Your task to perform on an android device: Go to Amazon Image 0: 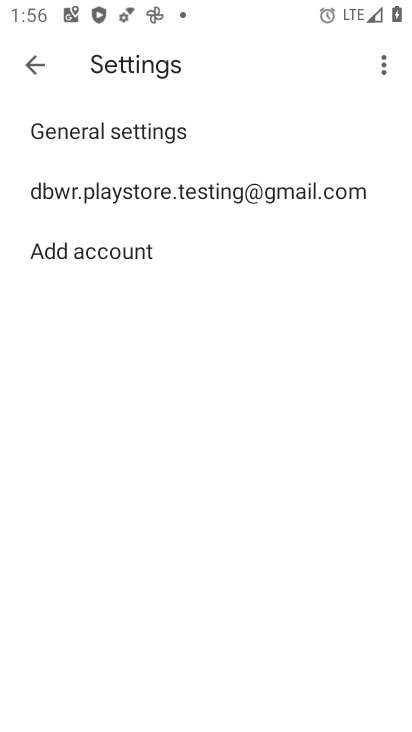
Step 0: press home button
Your task to perform on an android device: Go to Amazon Image 1: 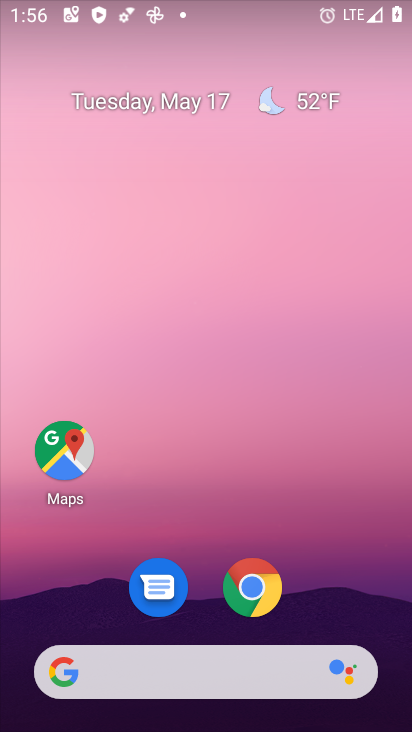
Step 1: click (245, 599)
Your task to perform on an android device: Go to Amazon Image 2: 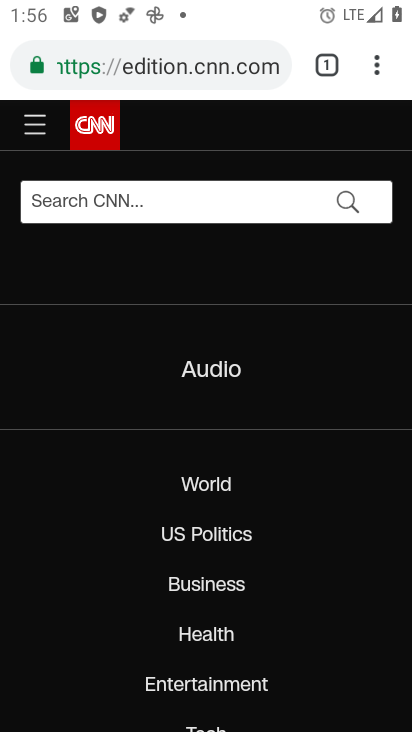
Step 2: click (342, 67)
Your task to perform on an android device: Go to Amazon Image 3: 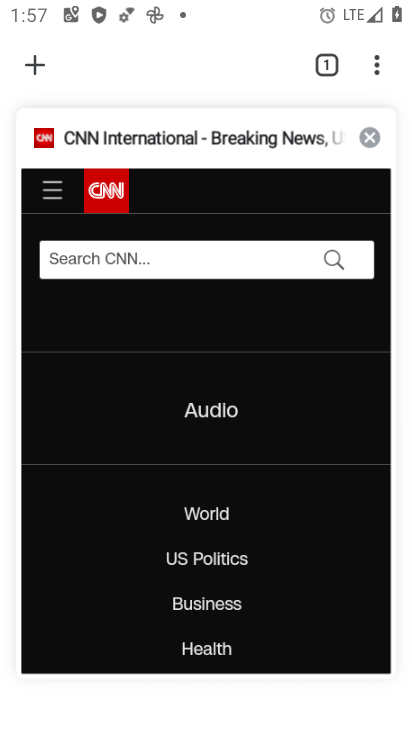
Step 3: click (27, 57)
Your task to perform on an android device: Go to Amazon Image 4: 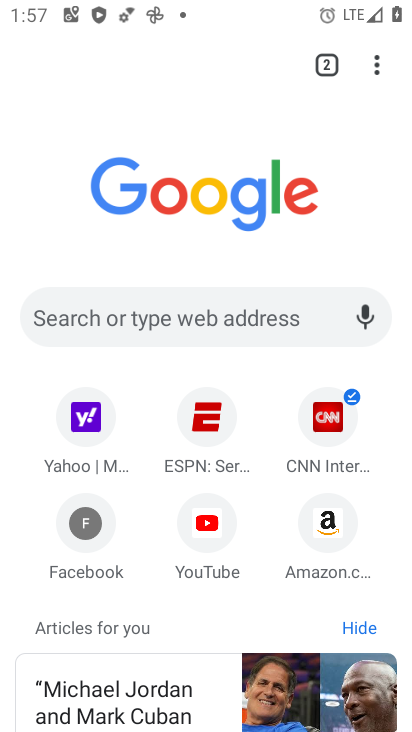
Step 4: click (312, 509)
Your task to perform on an android device: Go to Amazon Image 5: 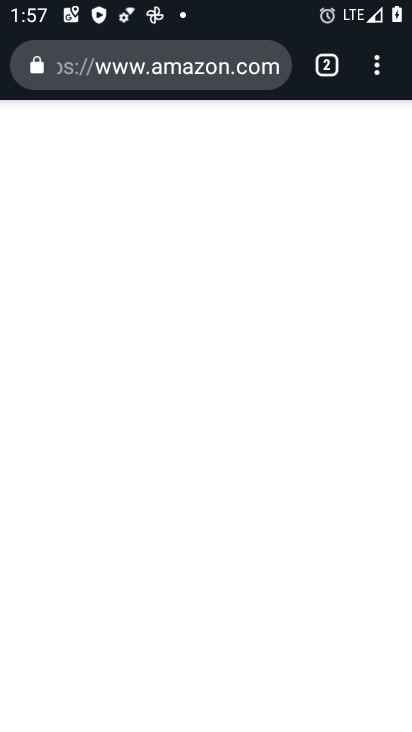
Step 5: task complete